Your task to perform on an android device: turn off smart reply in the gmail app Image 0: 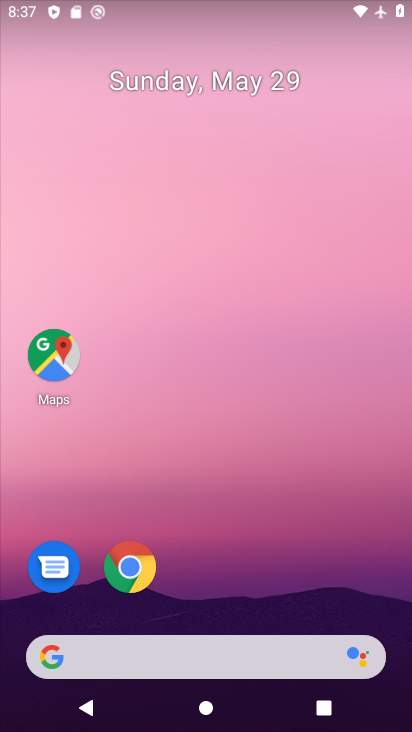
Step 0: drag from (381, 601) to (302, 64)
Your task to perform on an android device: turn off smart reply in the gmail app Image 1: 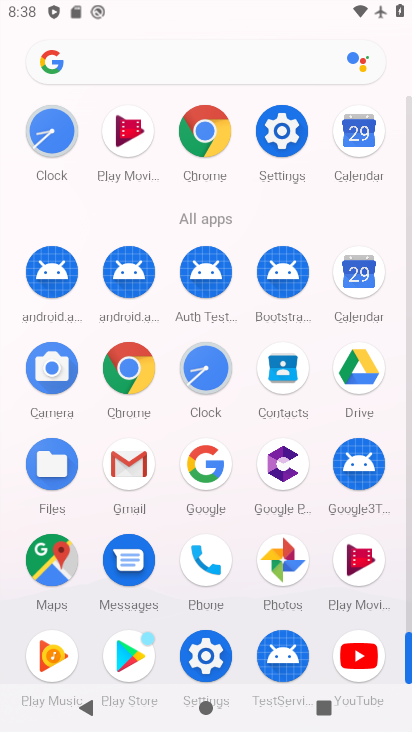
Step 1: click (129, 464)
Your task to perform on an android device: turn off smart reply in the gmail app Image 2: 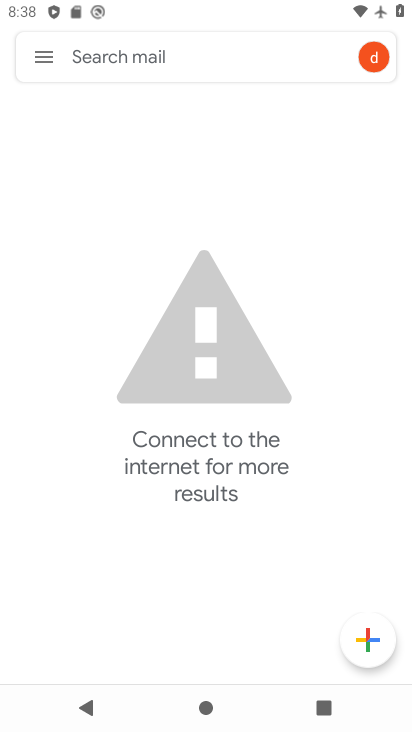
Step 2: click (44, 52)
Your task to perform on an android device: turn off smart reply in the gmail app Image 3: 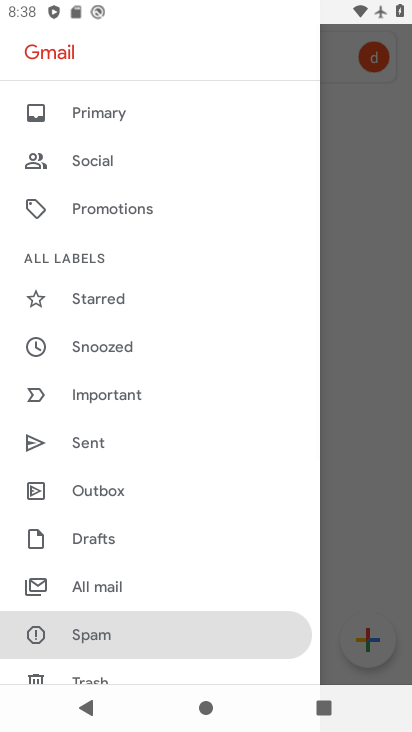
Step 3: drag from (191, 600) to (185, 98)
Your task to perform on an android device: turn off smart reply in the gmail app Image 4: 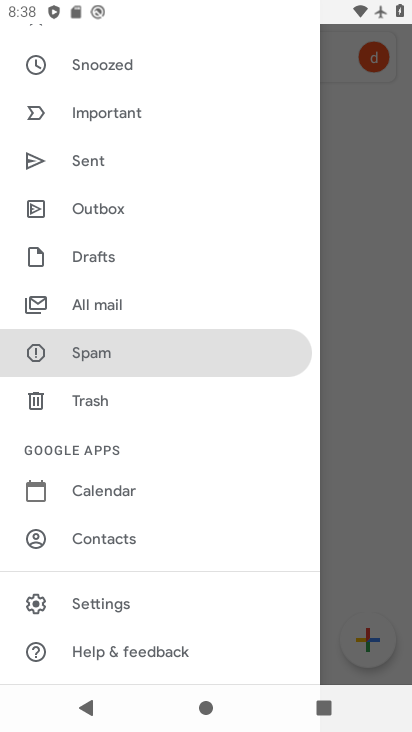
Step 4: click (96, 602)
Your task to perform on an android device: turn off smart reply in the gmail app Image 5: 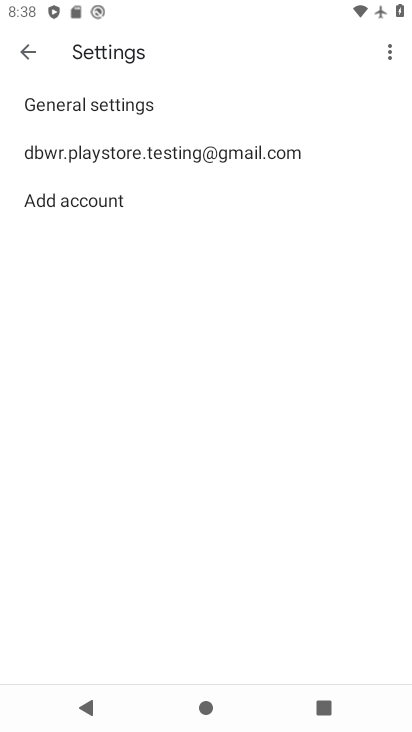
Step 5: click (143, 152)
Your task to perform on an android device: turn off smart reply in the gmail app Image 6: 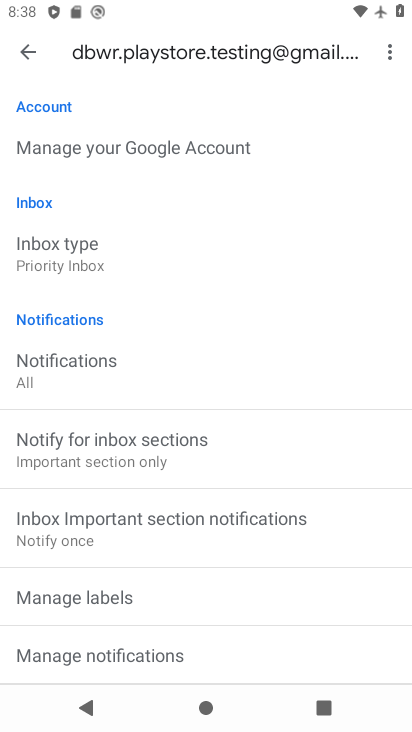
Step 6: drag from (263, 561) to (260, 162)
Your task to perform on an android device: turn off smart reply in the gmail app Image 7: 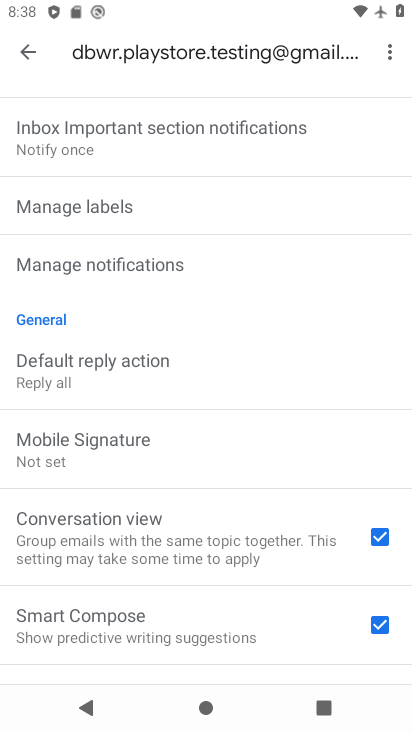
Step 7: drag from (257, 538) to (249, 81)
Your task to perform on an android device: turn off smart reply in the gmail app Image 8: 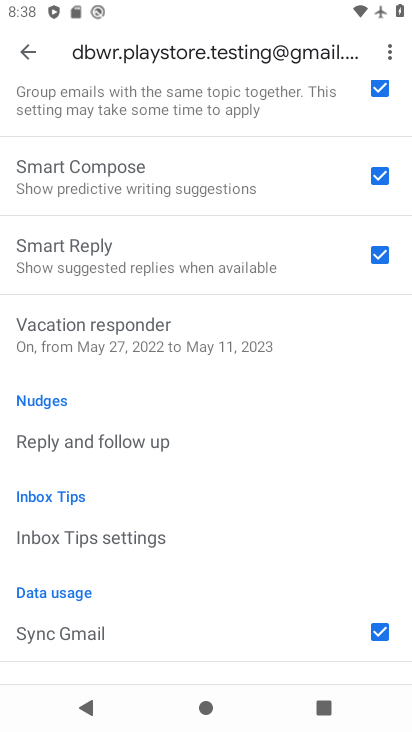
Step 8: click (377, 251)
Your task to perform on an android device: turn off smart reply in the gmail app Image 9: 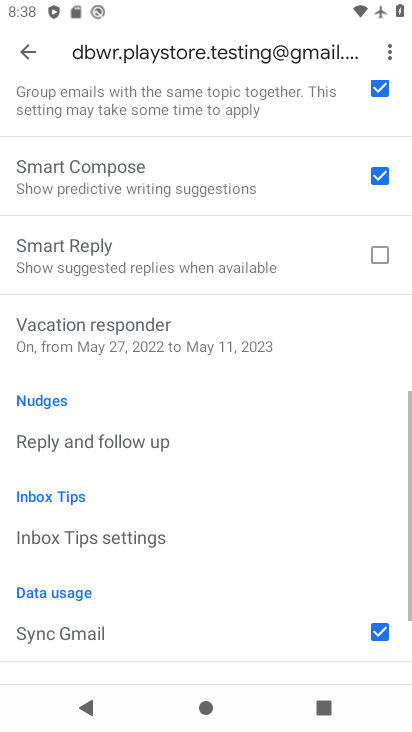
Step 9: task complete